Your task to perform on an android device: Go to notification settings Image 0: 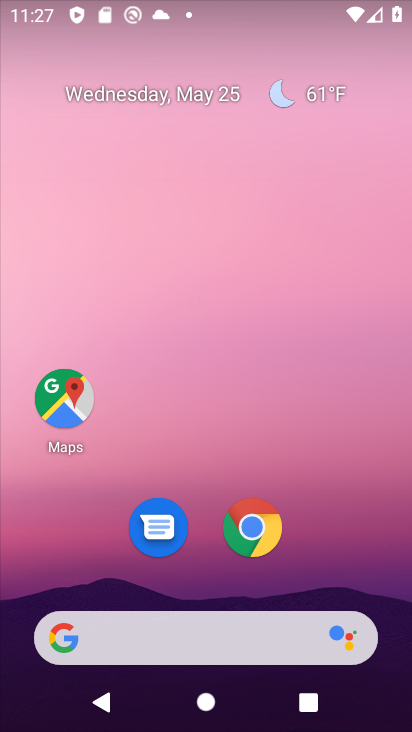
Step 0: drag from (248, 693) to (135, 190)
Your task to perform on an android device: Go to notification settings Image 1: 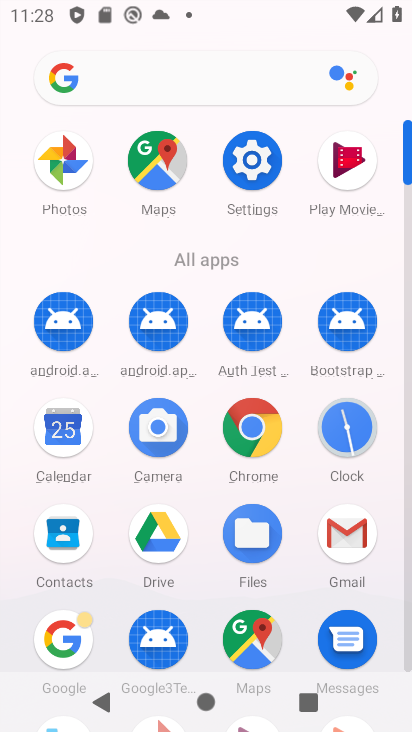
Step 1: click (242, 157)
Your task to perform on an android device: Go to notification settings Image 2: 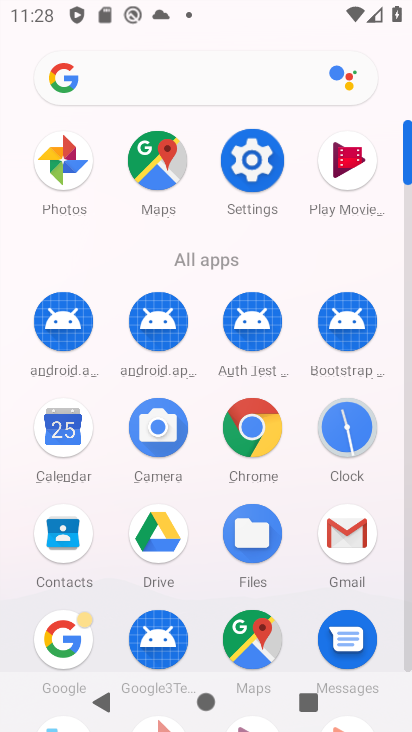
Step 2: click (243, 158)
Your task to perform on an android device: Go to notification settings Image 3: 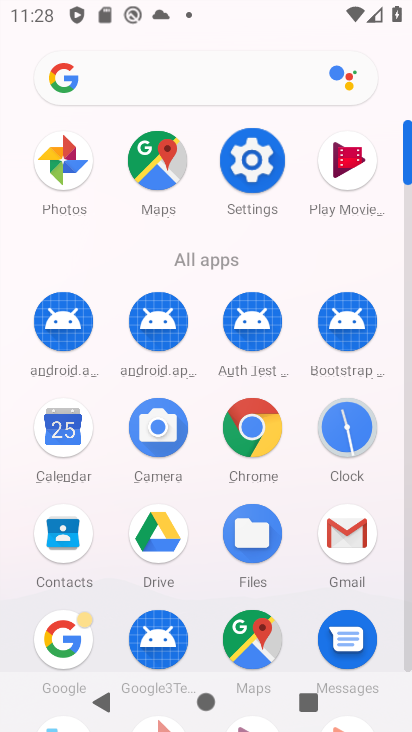
Step 3: click (243, 158)
Your task to perform on an android device: Go to notification settings Image 4: 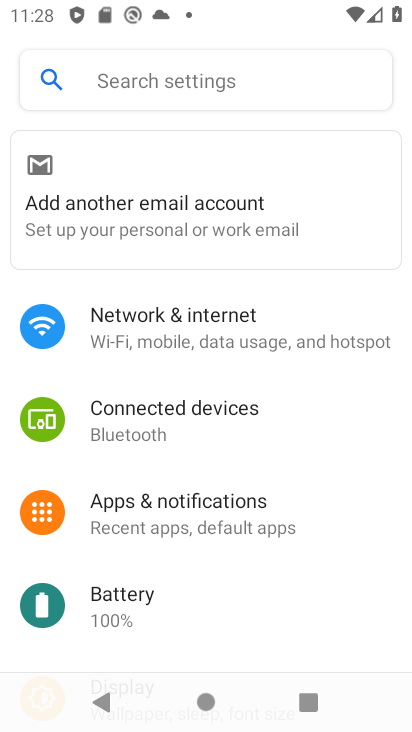
Step 4: click (167, 516)
Your task to perform on an android device: Go to notification settings Image 5: 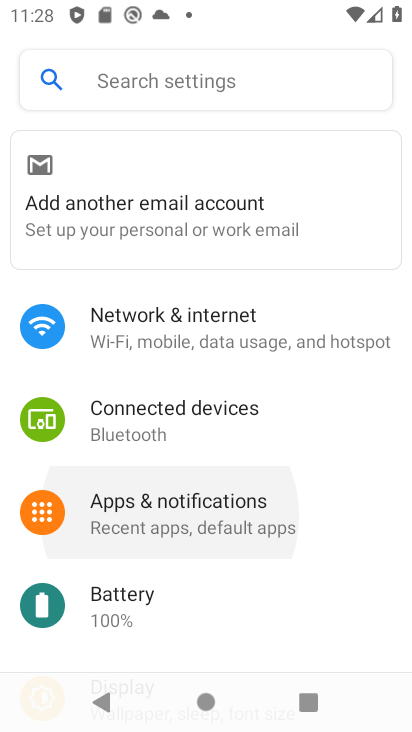
Step 5: click (167, 515)
Your task to perform on an android device: Go to notification settings Image 6: 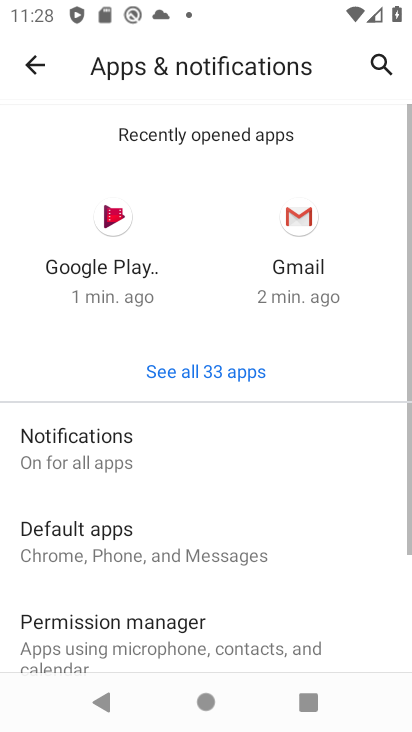
Step 6: click (63, 444)
Your task to perform on an android device: Go to notification settings Image 7: 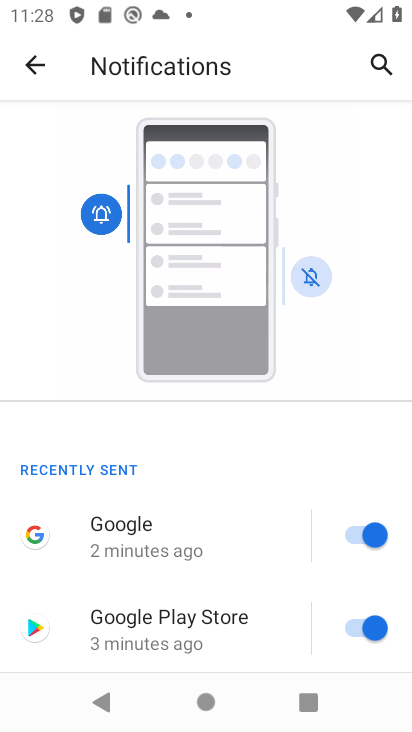
Step 7: drag from (152, 573) to (73, 211)
Your task to perform on an android device: Go to notification settings Image 8: 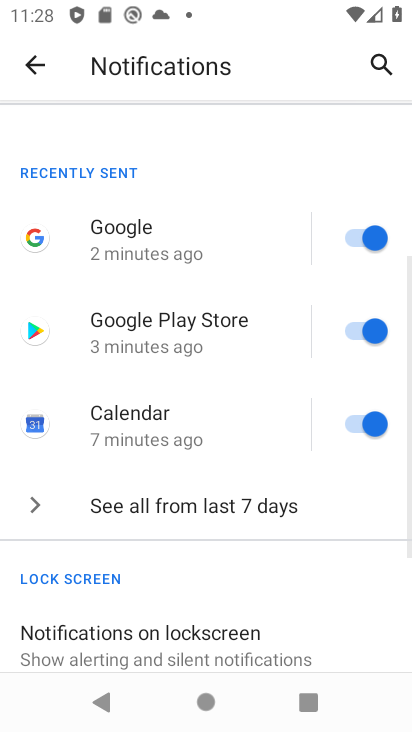
Step 8: click (29, 69)
Your task to perform on an android device: Go to notification settings Image 9: 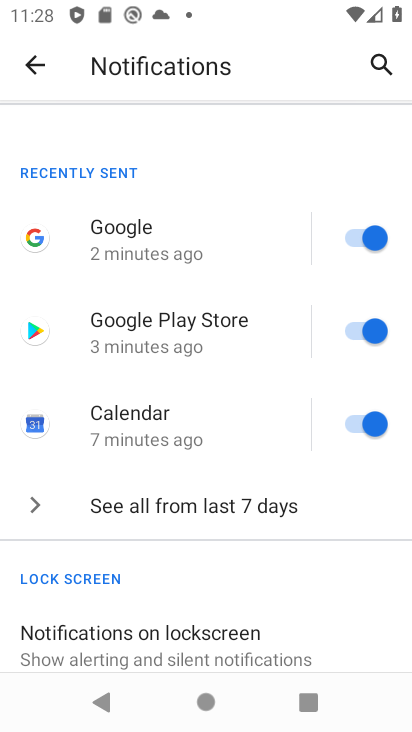
Step 9: task complete